Your task to perform on an android device: Go to ESPN.com Image 0: 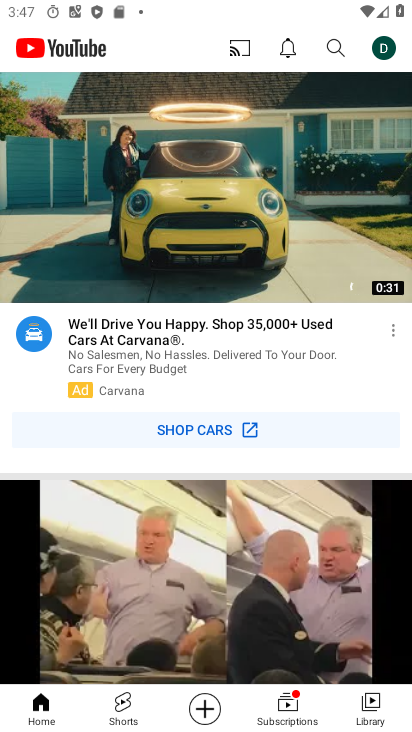
Step 0: press home button
Your task to perform on an android device: Go to ESPN.com Image 1: 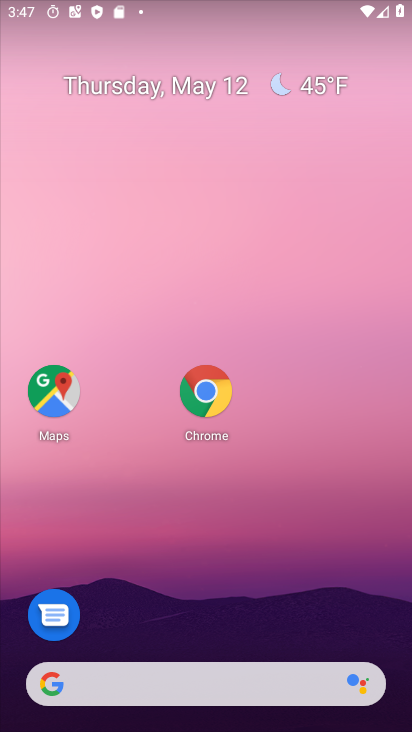
Step 1: drag from (214, 587) to (207, 139)
Your task to perform on an android device: Go to ESPN.com Image 2: 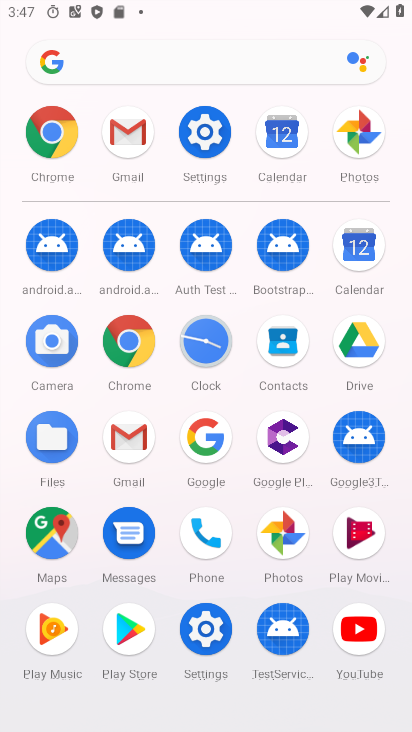
Step 2: click (208, 443)
Your task to perform on an android device: Go to ESPN.com Image 3: 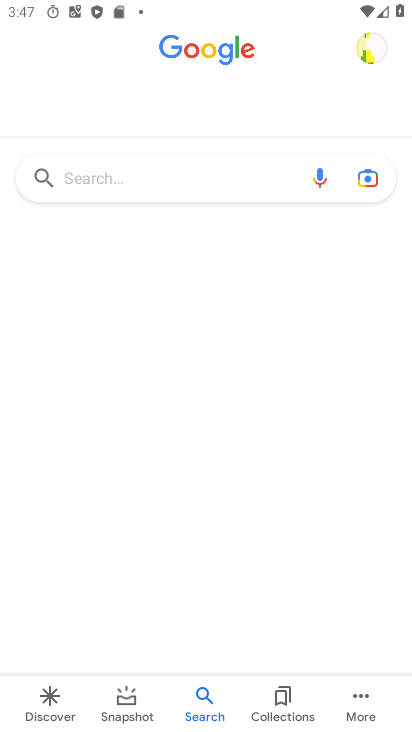
Step 3: click (128, 185)
Your task to perform on an android device: Go to ESPN.com Image 4: 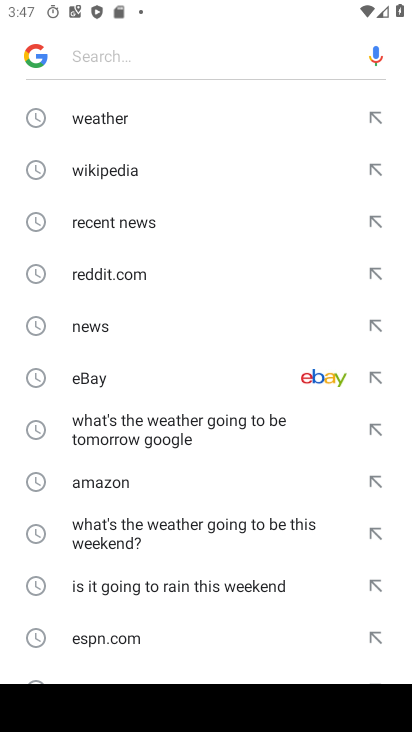
Step 4: click (142, 643)
Your task to perform on an android device: Go to ESPN.com Image 5: 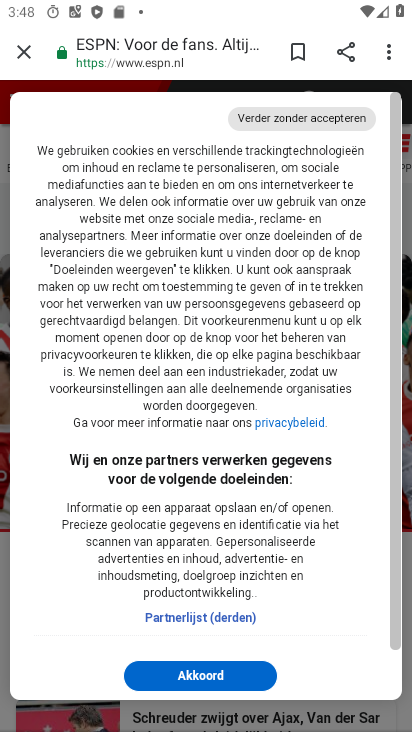
Step 5: task complete